Your task to perform on an android device: install app "Messages" Image 0: 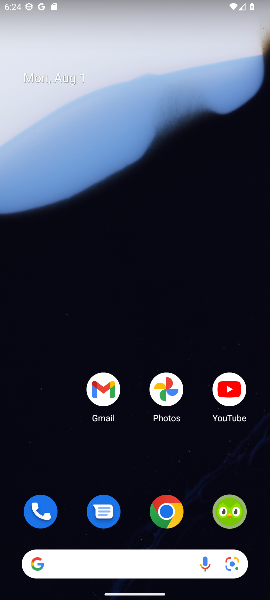
Step 0: drag from (149, 474) to (127, 4)
Your task to perform on an android device: install app "Messages" Image 1: 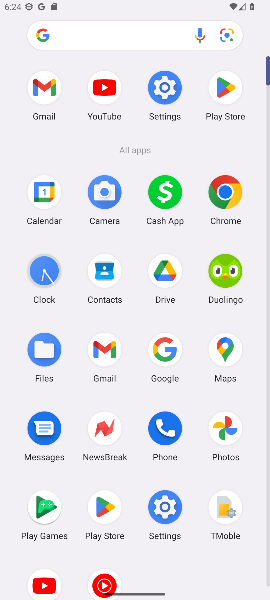
Step 1: click (100, 511)
Your task to perform on an android device: install app "Messages" Image 2: 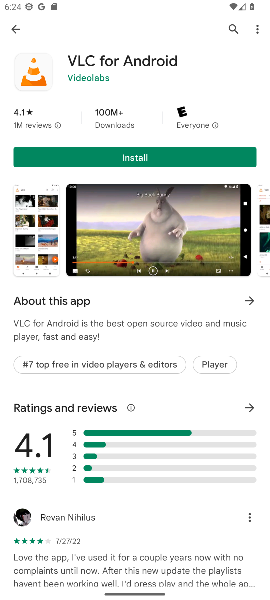
Step 2: click (232, 31)
Your task to perform on an android device: install app "Messages" Image 3: 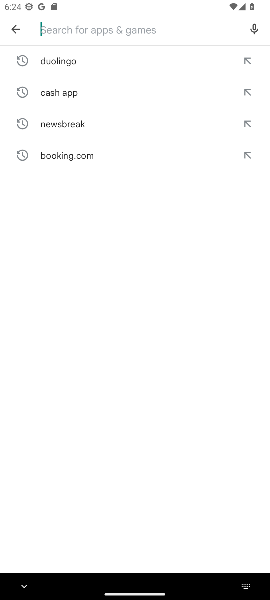
Step 3: type "messages"
Your task to perform on an android device: install app "Messages" Image 4: 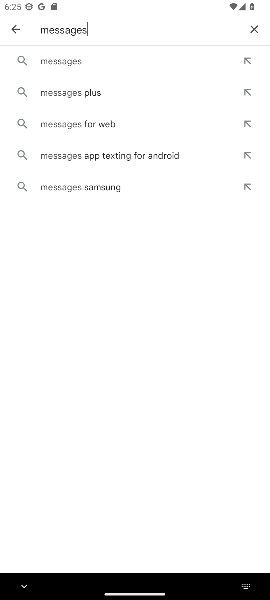
Step 4: click (75, 58)
Your task to perform on an android device: install app "Messages" Image 5: 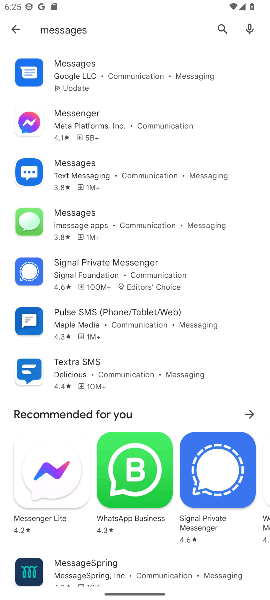
Step 5: click (103, 75)
Your task to perform on an android device: install app "Messages" Image 6: 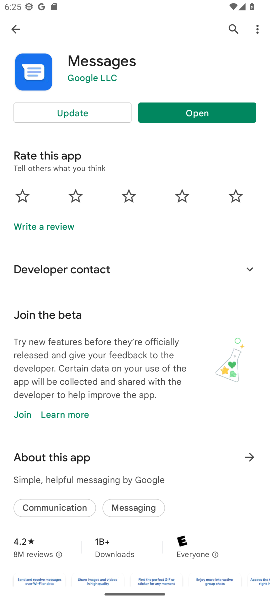
Step 6: task complete